Your task to perform on an android device: Open calendar and show me the fourth week of next month Image 0: 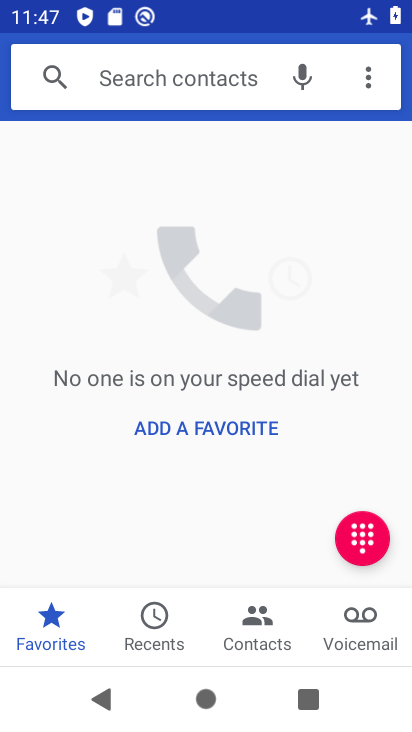
Step 0: drag from (368, 8) to (356, 492)
Your task to perform on an android device: Open calendar and show me the fourth week of next month Image 1: 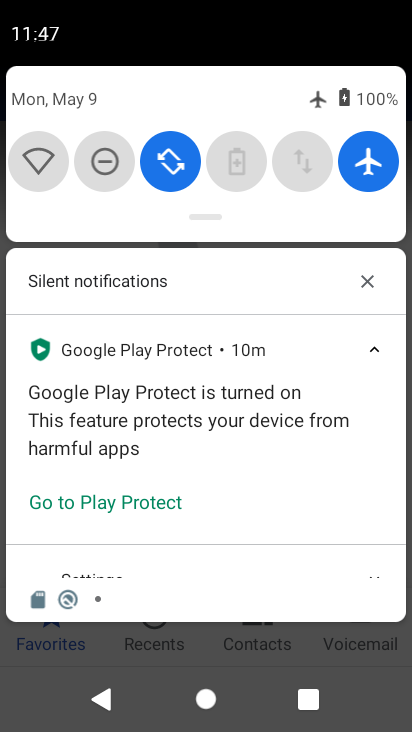
Step 1: click (350, 164)
Your task to perform on an android device: Open calendar and show me the fourth week of next month Image 2: 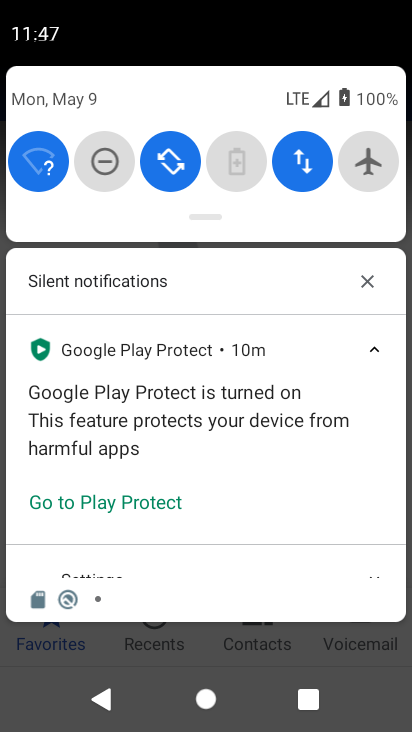
Step 2: drag from (264, 651) to (284, 323)
Your task to perform on an android device: Open calendar and show me the fourth week of next month Image 3: 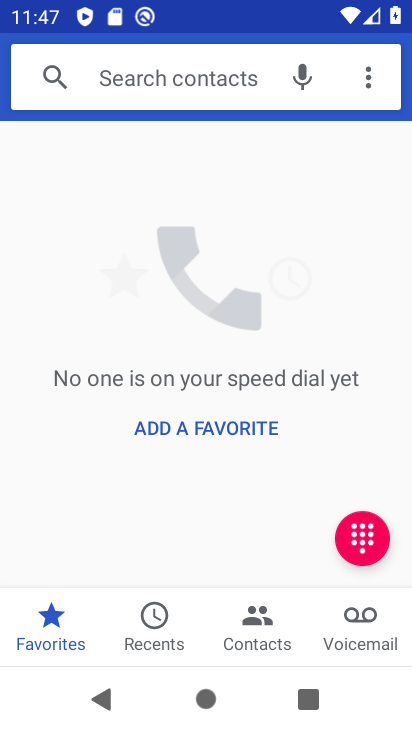
Step 3: press home button
Your task to perform on an android device: Open calendar and show me the fourth week of next month Image 4: 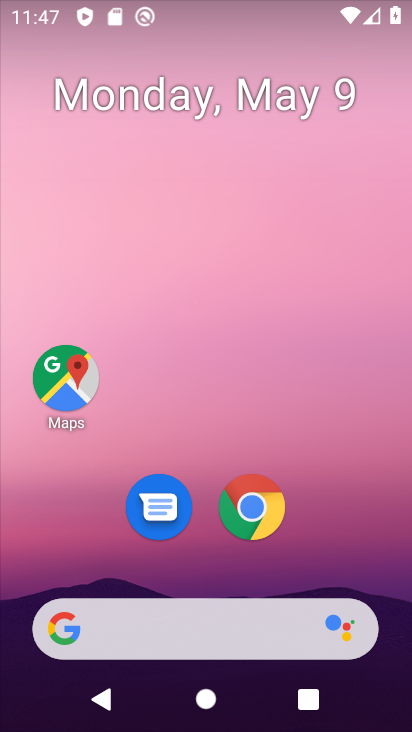
Step 4: drag from (346, 493) to (315, 137)
Your task to perform on an android device: Open calendar and show me the fourth week of next month Image 5: 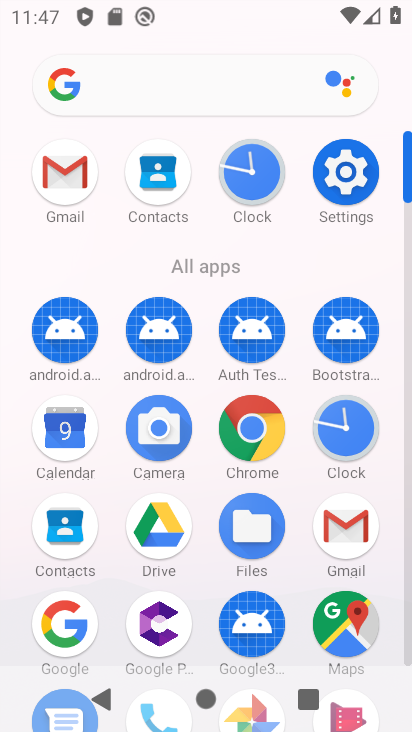
Step 5: click (78, 434)
Your task to perform on an android device: Open calendar and show me the fourth week of next month Image 6: 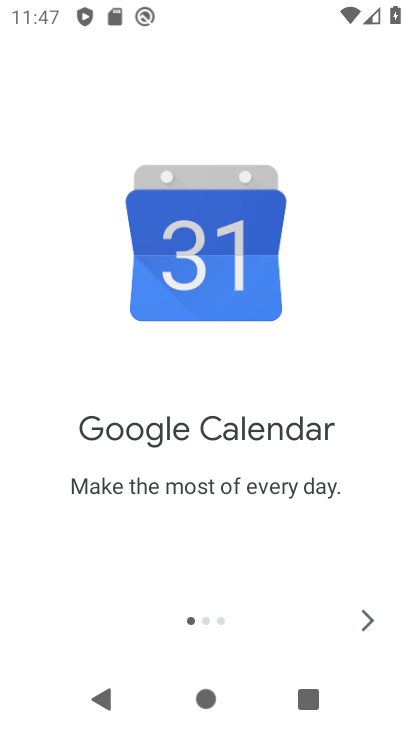
Step 6: click (363, 610)
Your task to perform on an android device: Open calendar and show me the fourth week of next month Image 7: 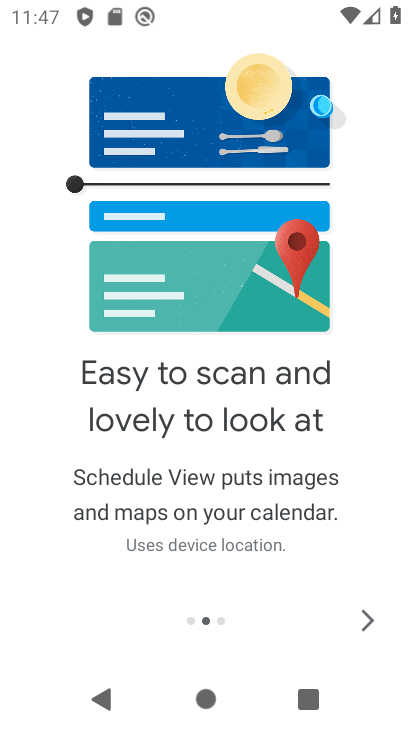
Step 7: click (362, 611)
Your task to perform on an android device: Open calendar and show me the fourth week of next month Image 8: 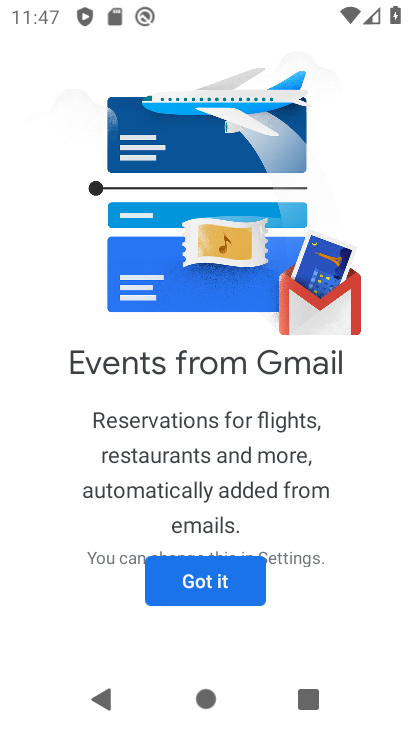
Step 8: click (245, 589)
Your task to perform on an android device: Open calendar and show me the fourth week of next month Image 9: 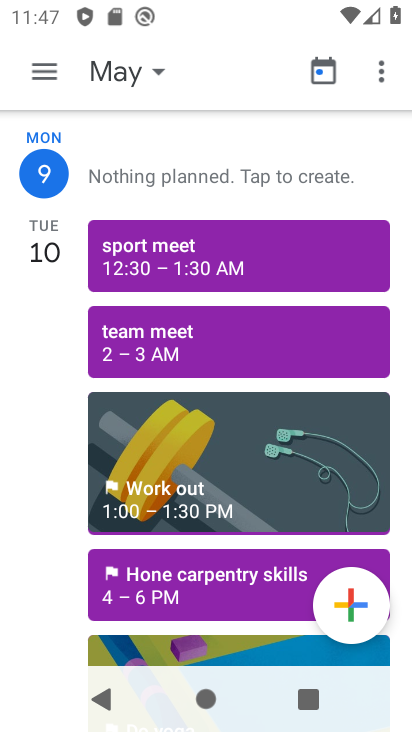
Step 9: click (57, 72)
Your task to perform on an android device: Open calendar and show me the fourth week of next month Image 10: 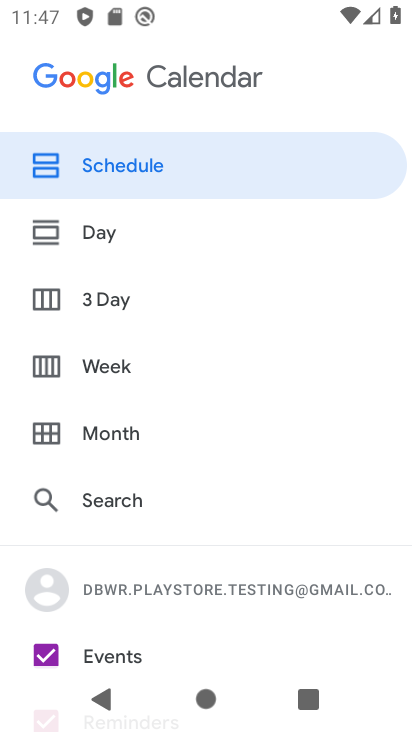
Step 10: click (125, 359)
Your task to perform on an android device: Open calendar and show me the fourth week of next month Image 11: 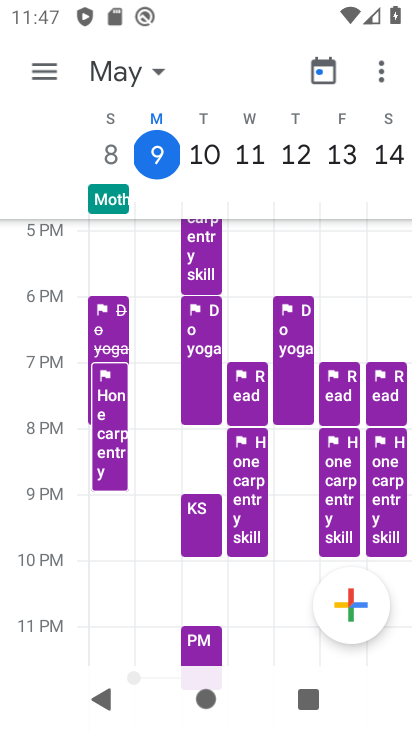
Step 11: click (147, 64)
Your task to perform on an android device: Open calendar and show me the fourth week of next month Image 12: 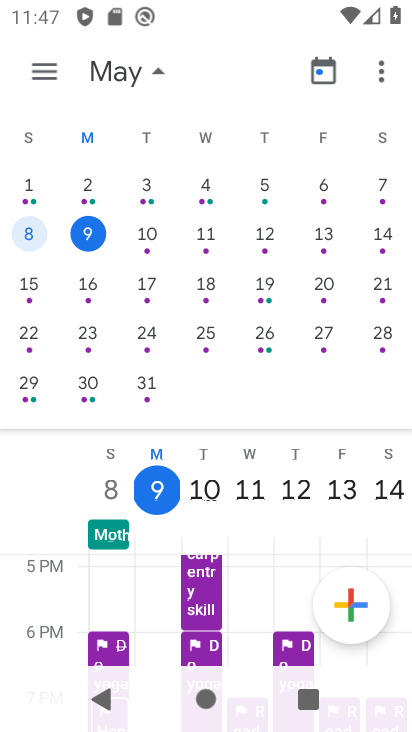
Step 12: drag from (368, 284) to (39, 290)
Your task to perform on an android device: Open calendar and show me the fourth week of next month Image 13: 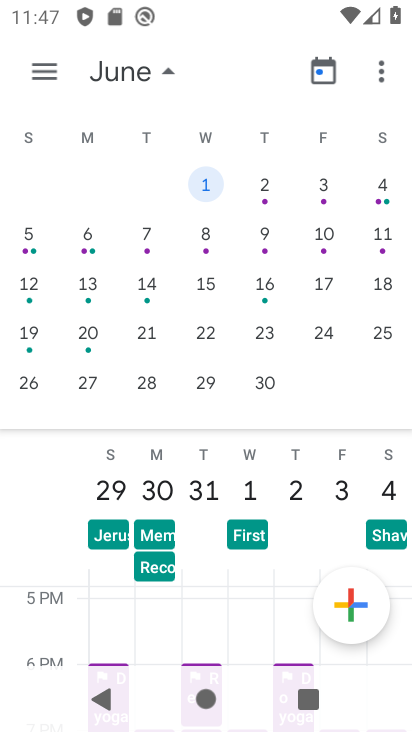
Step 13: click (141, 385)
Your task to perform on an android device: Open calendar and show me the fourth week of next month Image 14: 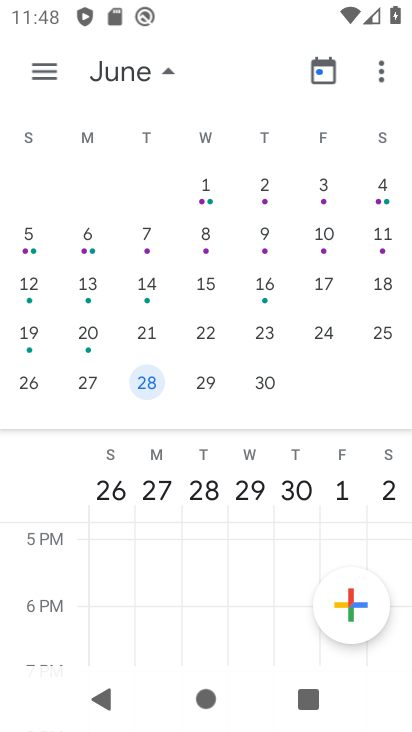
Step 14: task complete